Your task to perform on an android device: turn on javascript in the chrome app Image 0: 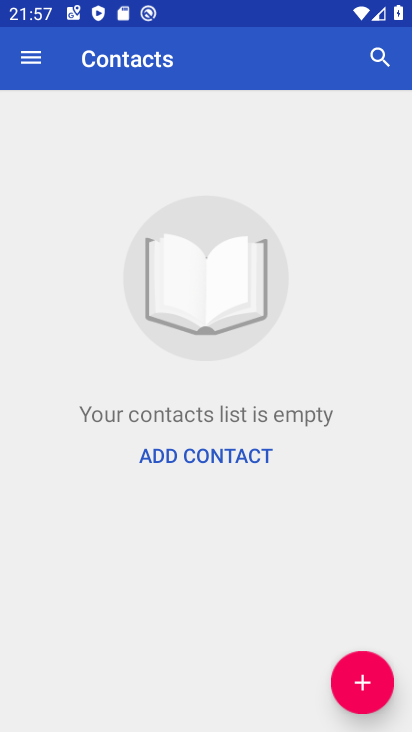
Step 0: press home button
Your task to perform on an android device: turn on javascript in the chrome app Image 1: 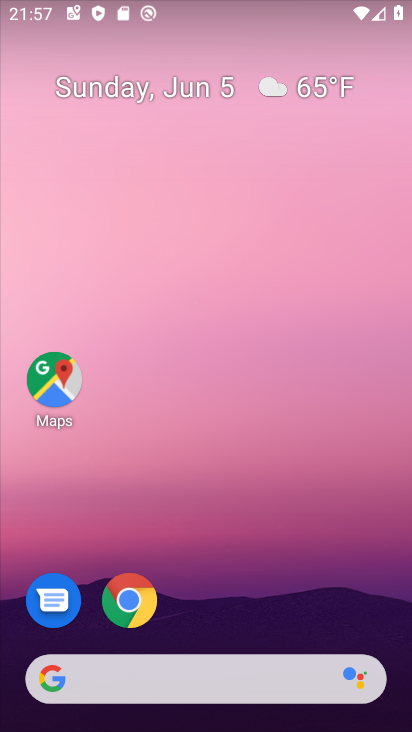
Step 1: click (130, 596)
Your task to perform on an android device: turn on javascript in the chrome app Image 2: 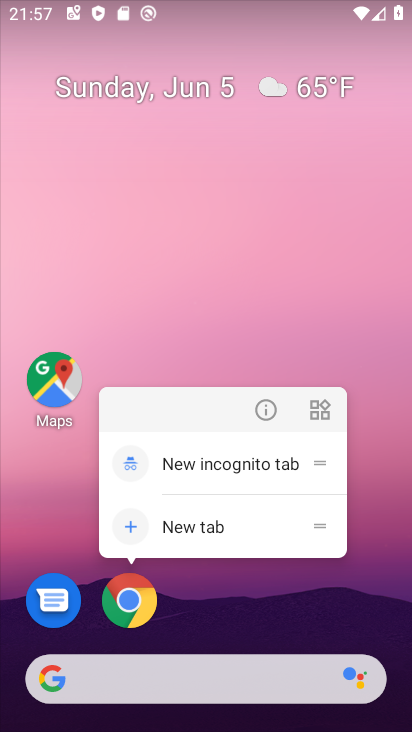
Step 2: click (130, 596)
Your task to perform on an android device: turn on javascript in the chrome app Image 3: 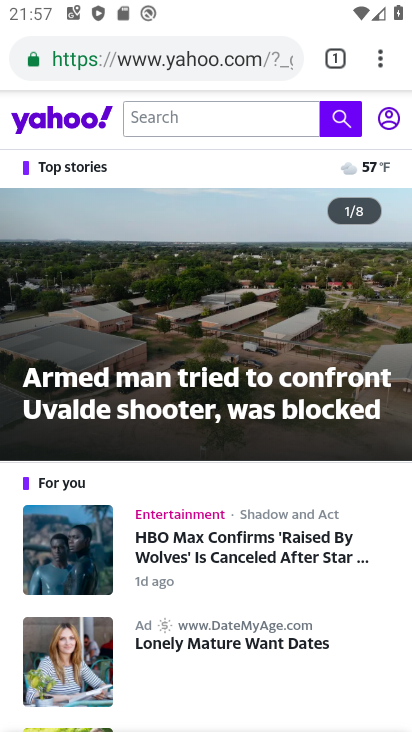
Step 3: drag from (386, 54) to (234, 632)
Your task to perform on an android device: turn on javascript in the chrome app Image 4: 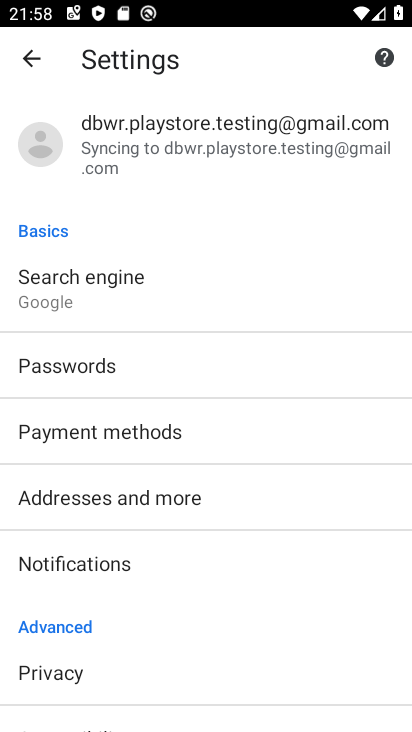
Step 4: drag from (204, 494) to (314, 141)
Your task to perform on an android device: turn on javascript in the chrome app Image 5: 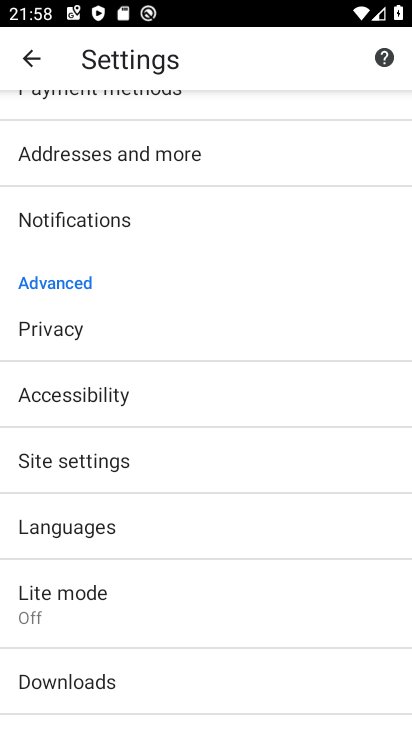
Step 5: click (122, 459)
Your task to perform on an android device: turn on javascript in the chrome app Image 6: 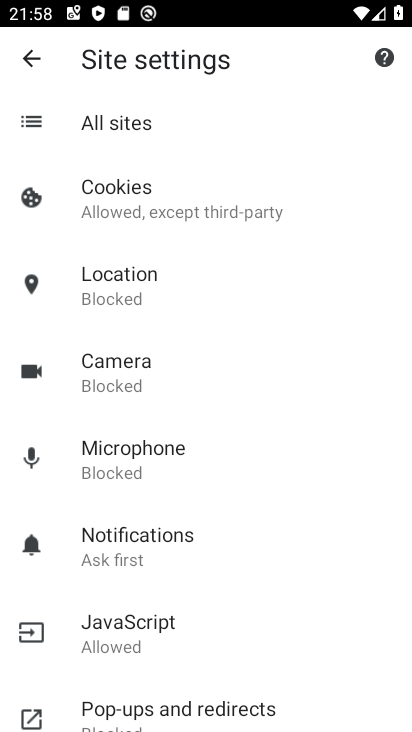
Step 6: click (167, 624)
Your task to perform on an android device: turn on javascript in the chrome app Image 7: 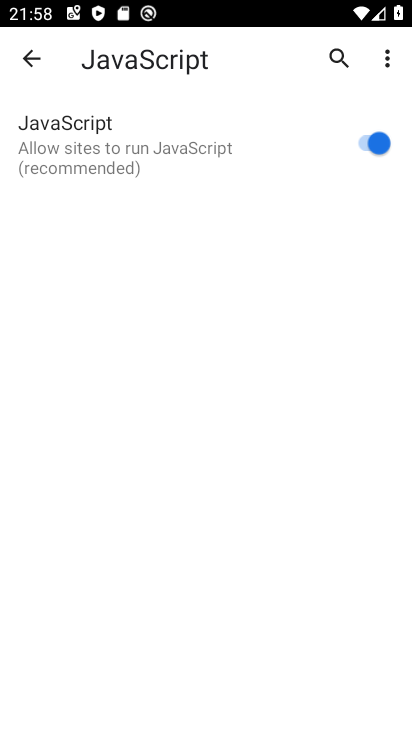
Step 7: task complete